Your task to perform on an android device: Open Google Chrome Image 0: 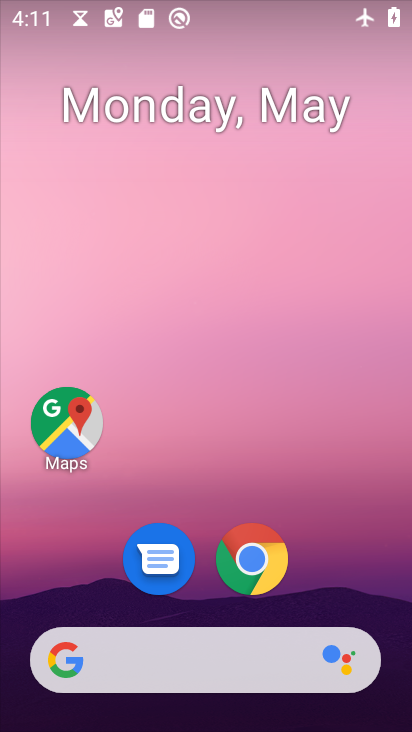
Step 0: click (254, 566)
Your task to perform on an android device: Open Google Chrome Image 1: 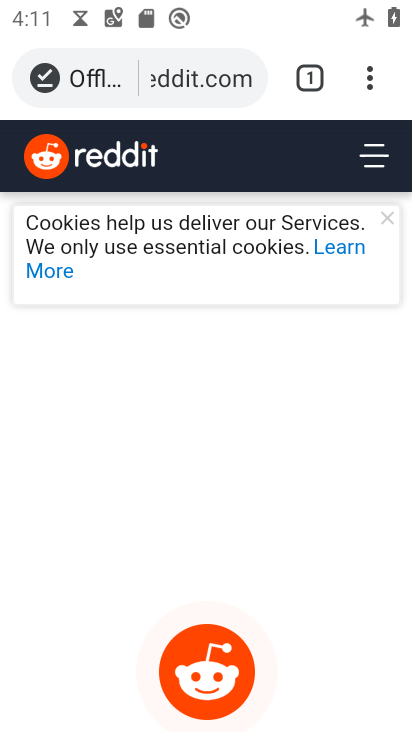
Step 1: task complete